Your task to perform on an android device: open app "Duolingo: language lessons" Image 0: 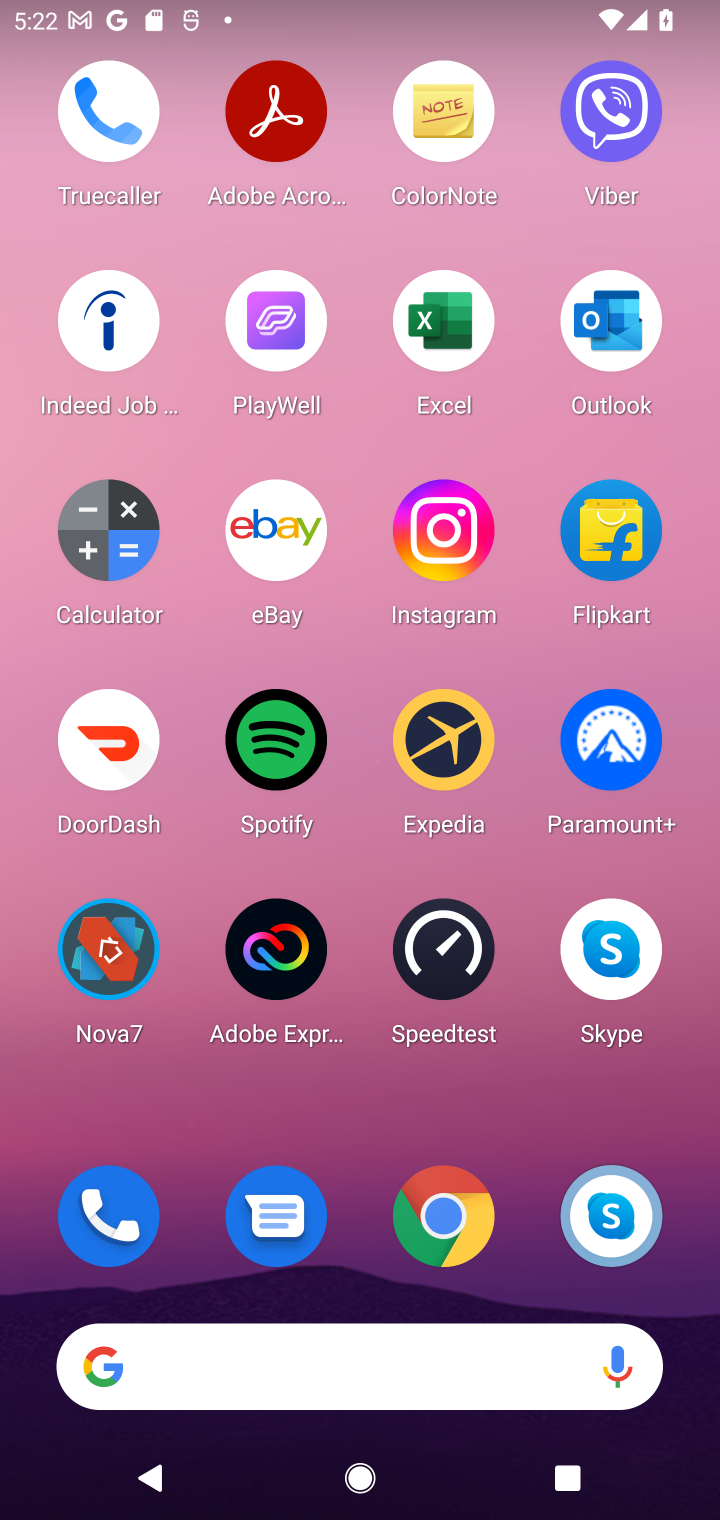
Step 0: drag from (540, 1281) to (532, 307)
Your task to perform on an android device: open app "Duolingo: language lessons" Image 1: 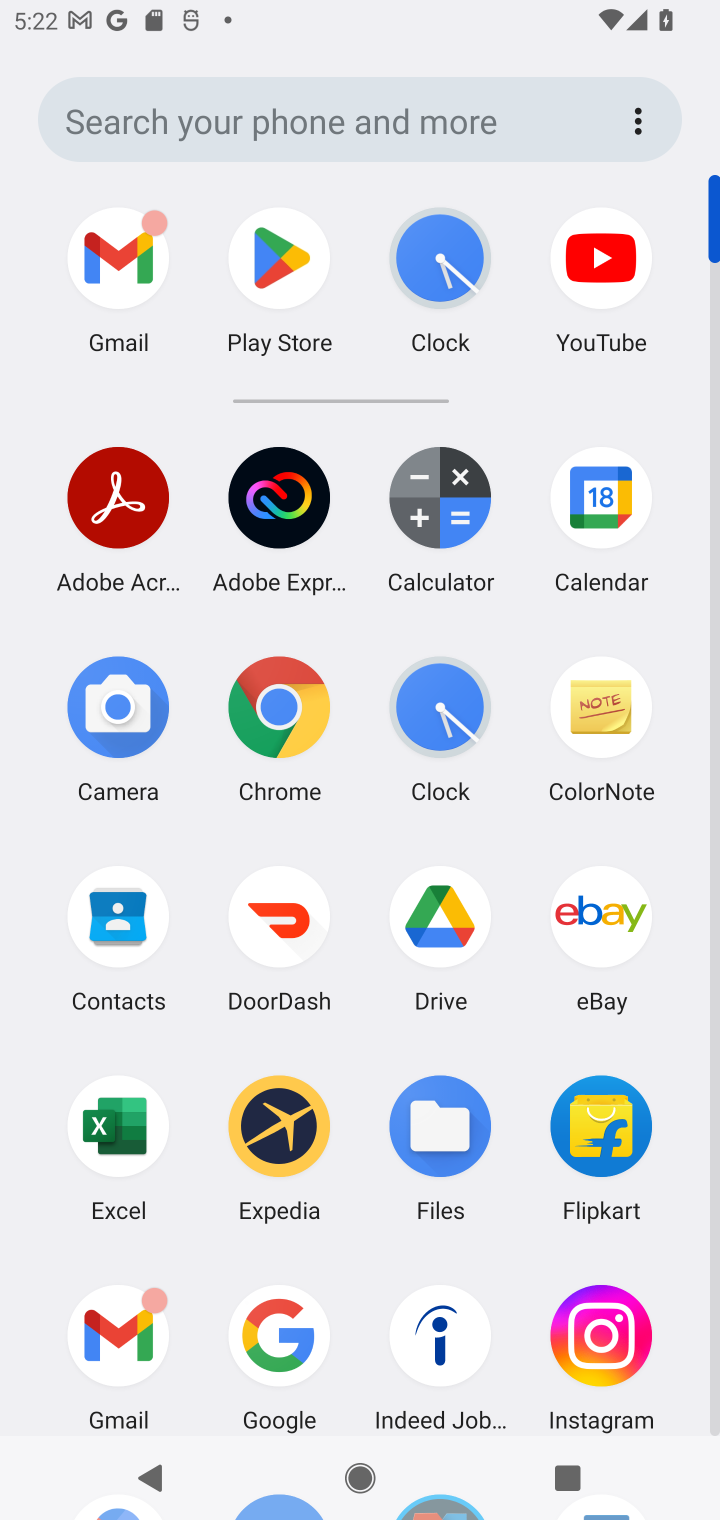
Step 1: drag from (516, 1324) to (531, 690)
Your task to perform on an android device: open app "Duolingo: language lessons" Image 2: 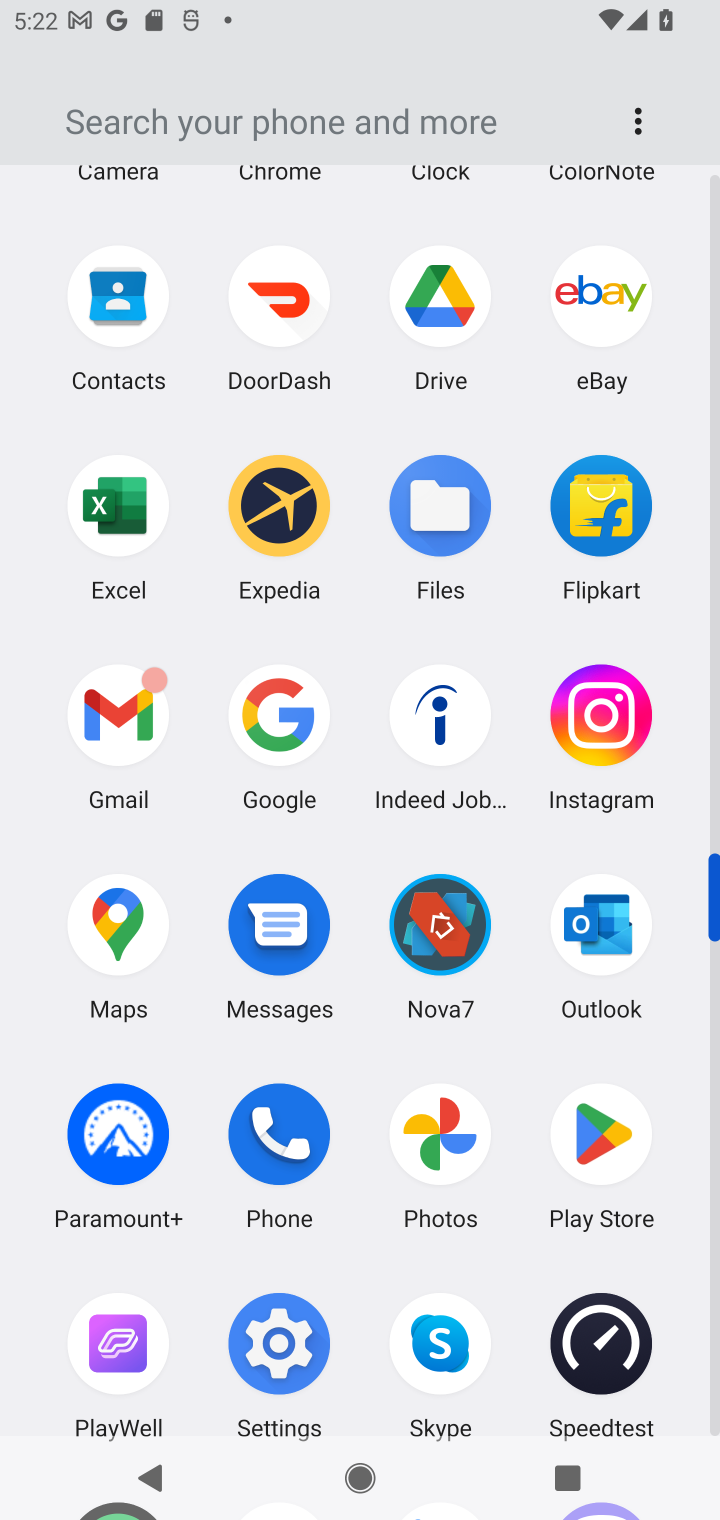
Step 2: click (605, 1138)
Your task to perform on an android device: open app "Duolingo: language lessons" Image 3: 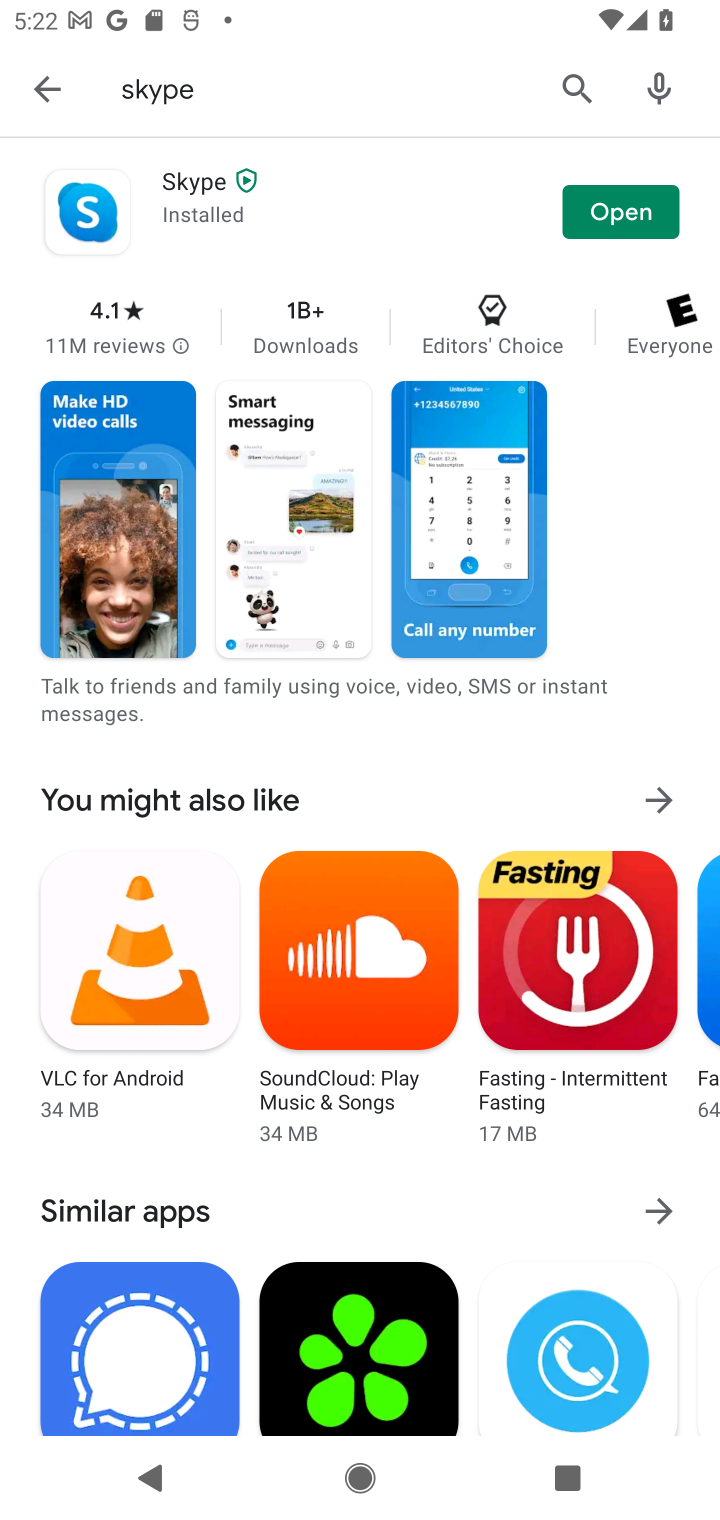
Step 3: click (573, 83)
Your task to perform on an android device: open app "Duolingo: language lessons" Image 4: 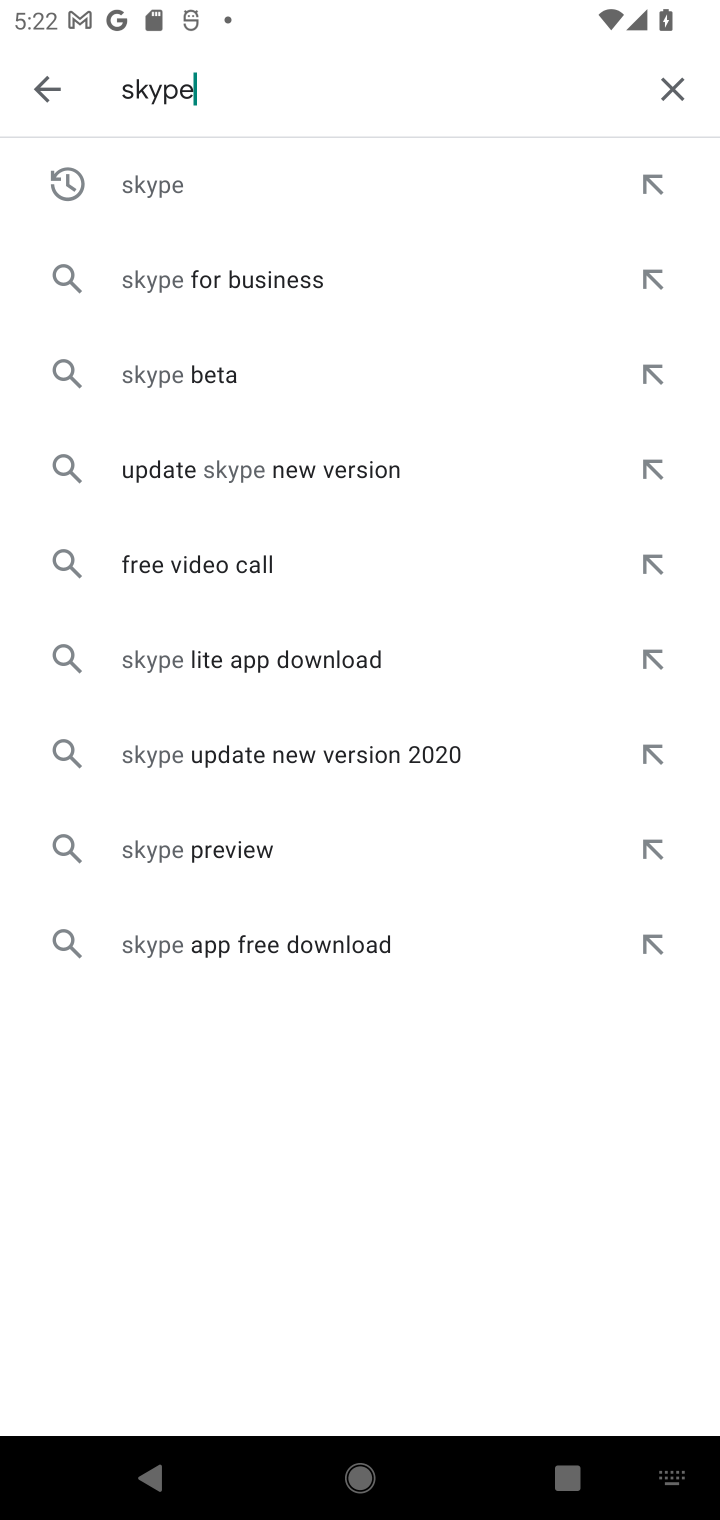
Step 4: click (665, 84)
Your task to perform on an android device: open app "Duolingo: language lessons" Image 5: 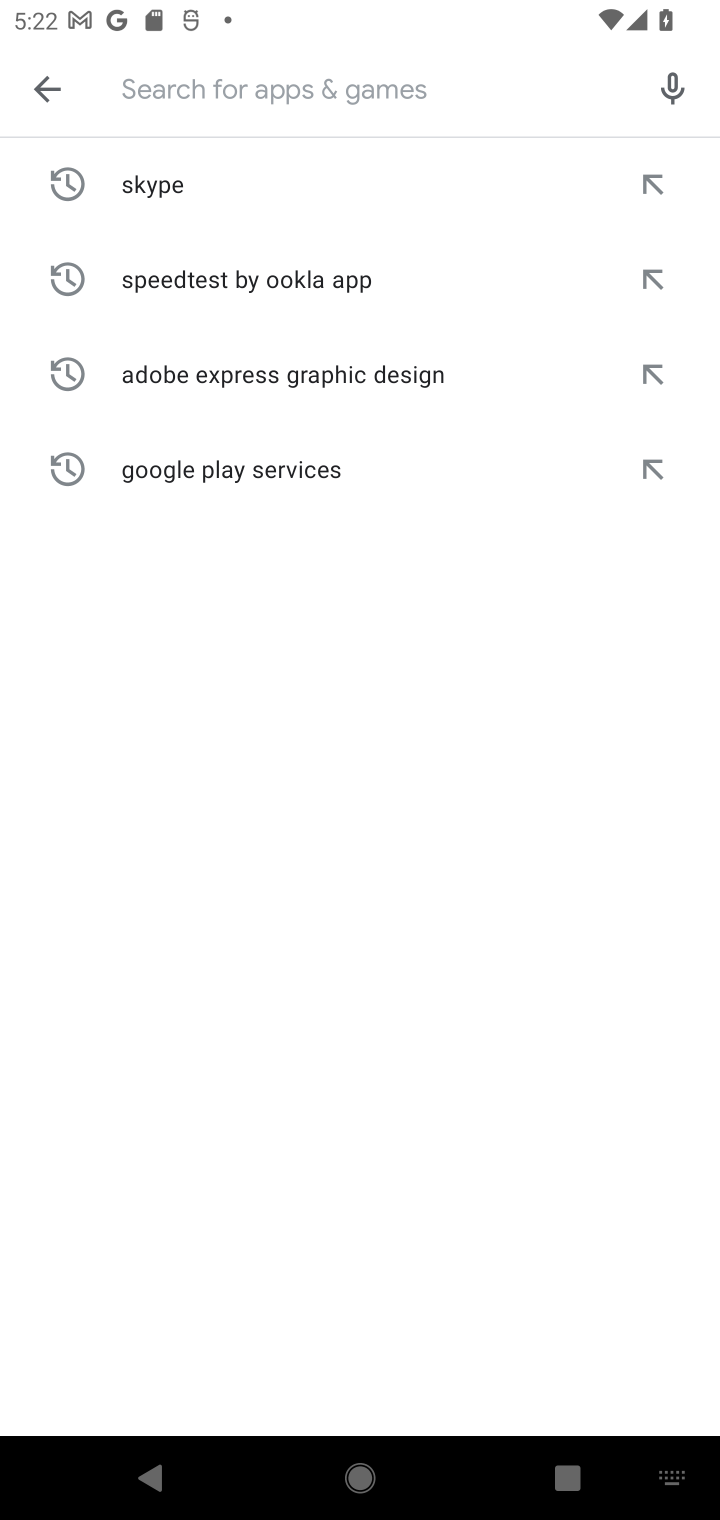
Step 5: type "Duolingo: language lessons"
Your task to perform on an android device: open app "Duolingo: language lessons" Image 6: 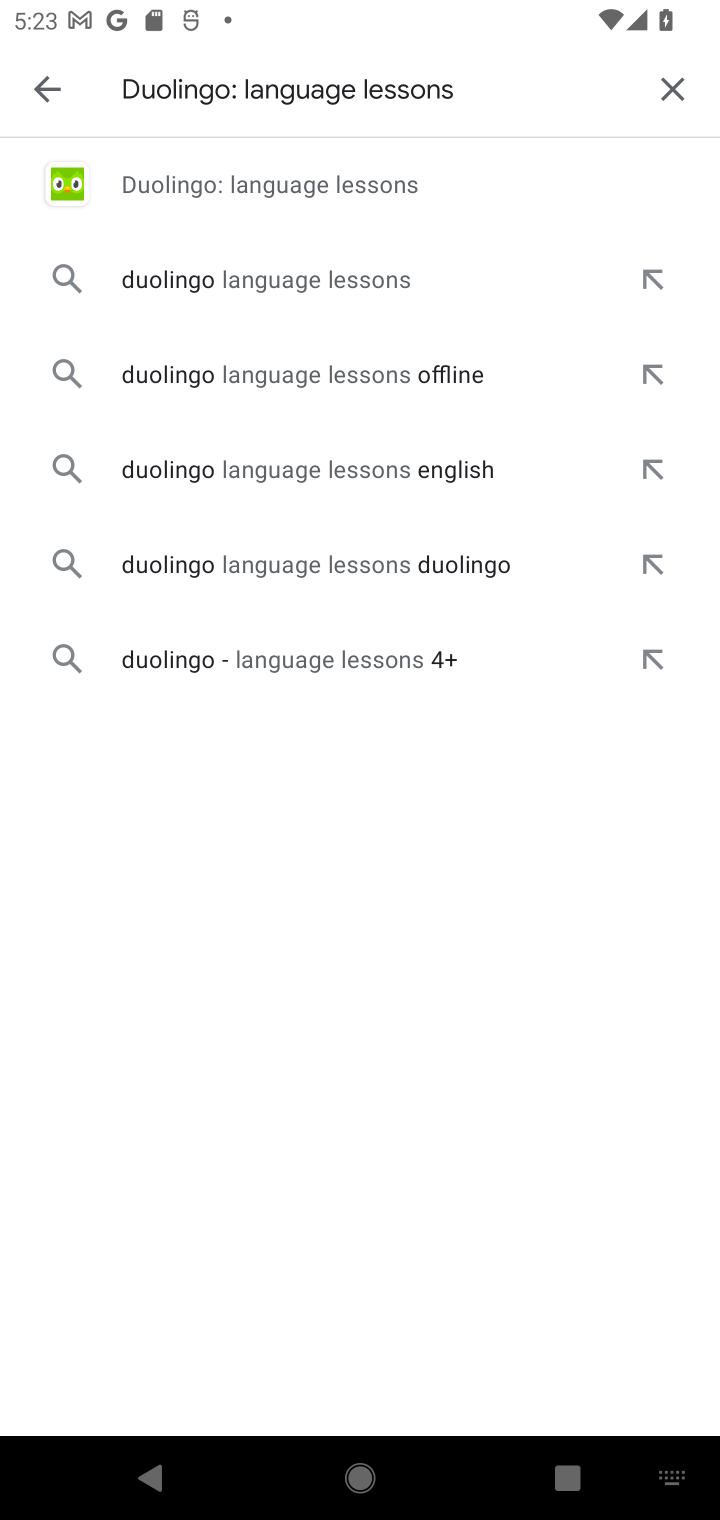
Step 6: click (232, 189)
Your task to perform on an android device: open app "Duolingo: language lessons" Image 7: 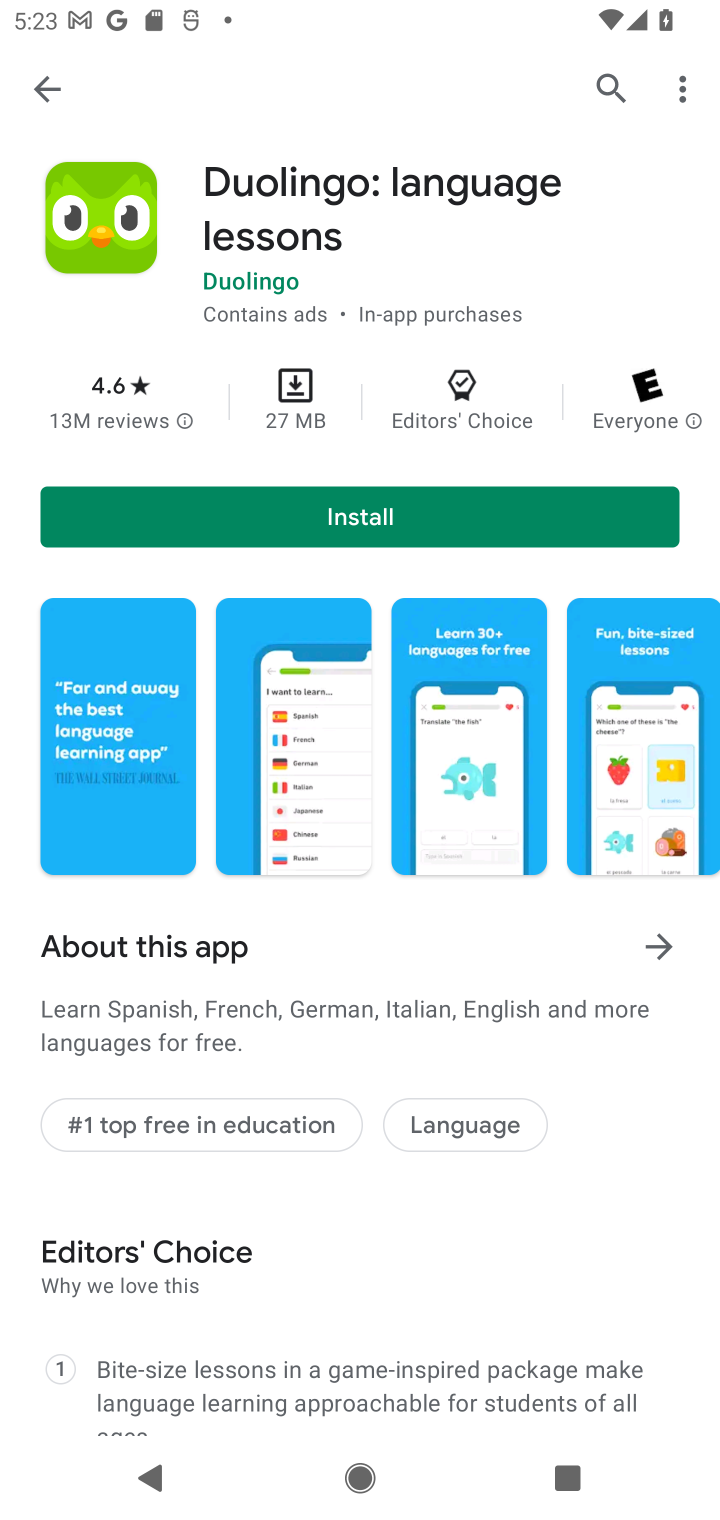
Step 7: task complete